Your task to perform on an android device: Go to Android settings Image 0: 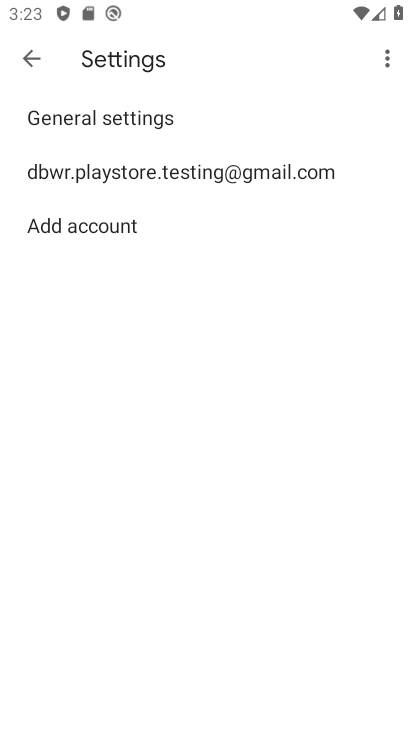
Step 0: press home button
Your task to perform on an android device: Go to Android settings Image 1: 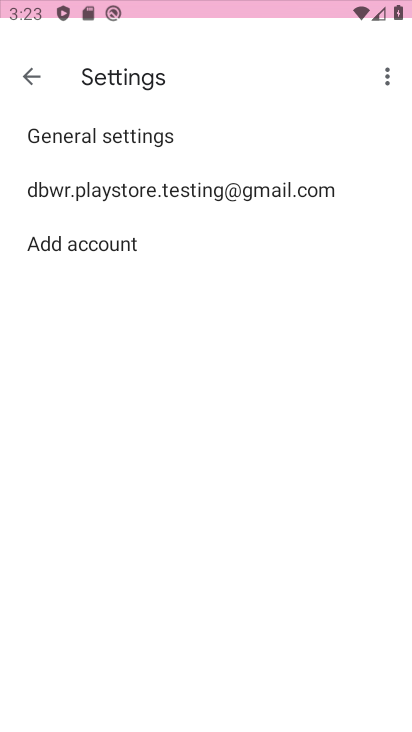
Step 1: press home button
Your task to perform on an android device: Go to Android settings Image 2: 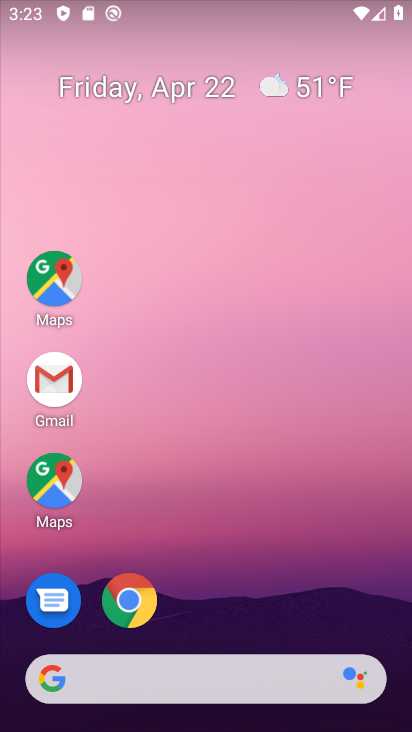
Step 2: drag from (266, 614) to (141, 212)
Your task to perform on an android device: Go to Android settings Image 3: 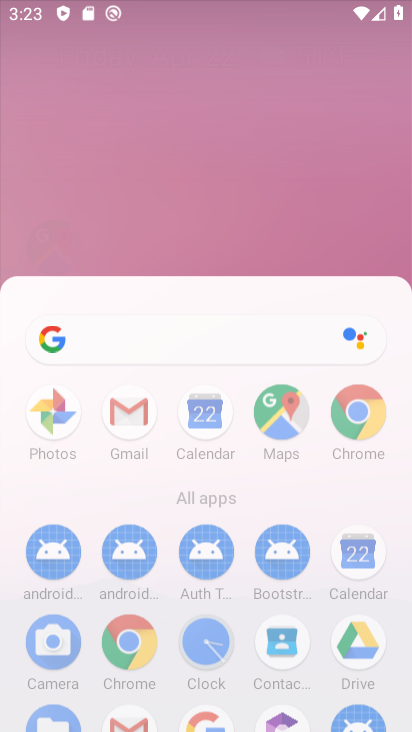
Step 3: drag from (301, 628) to (157, 130)
Your task to perform on an android device: Go to Android settings Image 4: 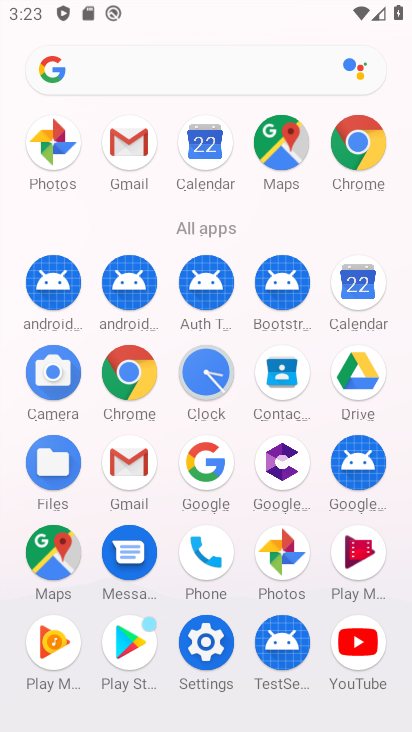
Step 4: click (205, 639)
Your task to perform on an android device: Go to Android settings Image 5: 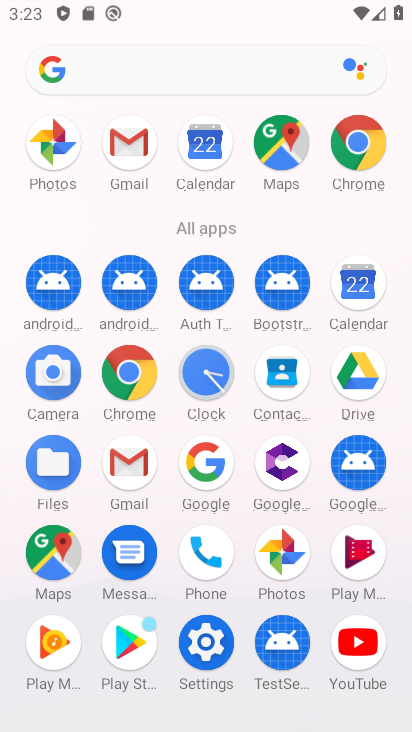
Step 5: click (215, 640)
Your task to perform on an android device: Go to Android settings Image 6: 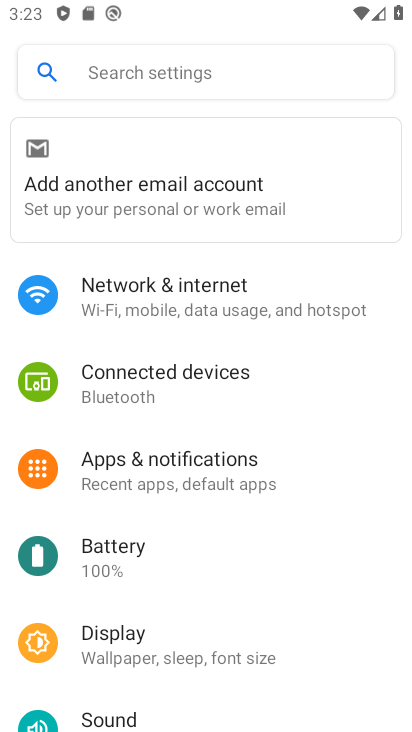
Step 6: drag from (194, 574) to (158, 100)
Your task to perform on an android device: Go to Android settings Image 7: 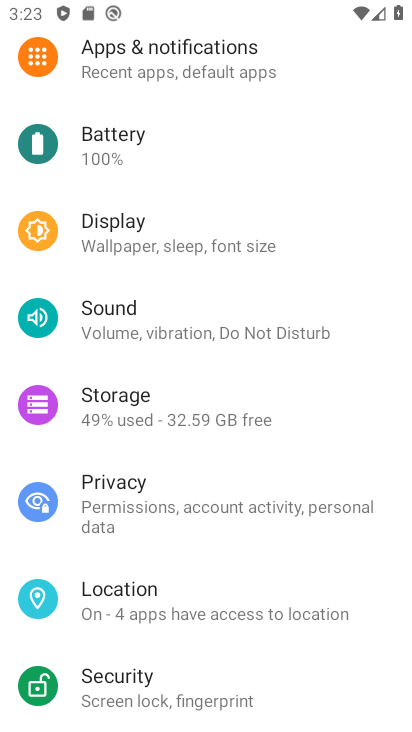
Step 7: drag from (148, 227) to (168, 160)
Your task to perform on an android device: Go to Android settings Image 8: 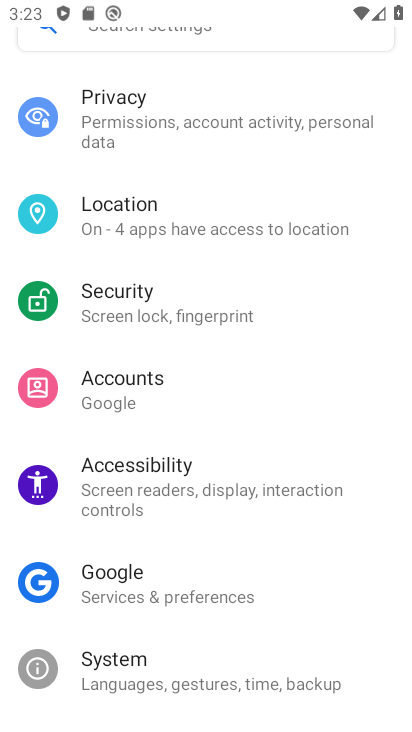
Step 8: drag from (180, 483) to (199, 162)
Your task to perform on an android device: Go to Android settings Image 9: 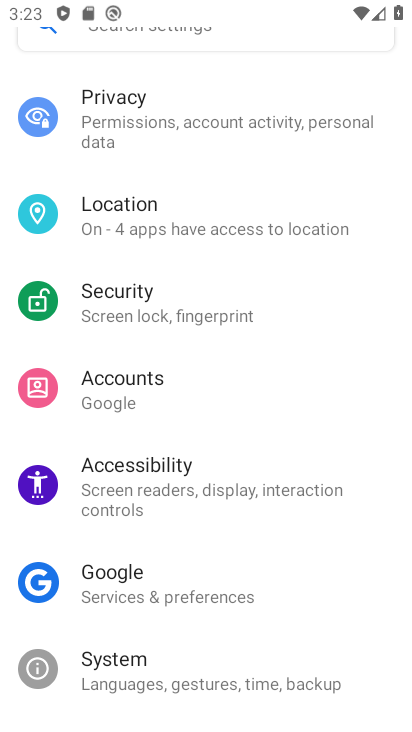
Step 9: drag from (207, 570) to (187, 240)
Your task to perform on an android device: Go to Android settings Image 10: 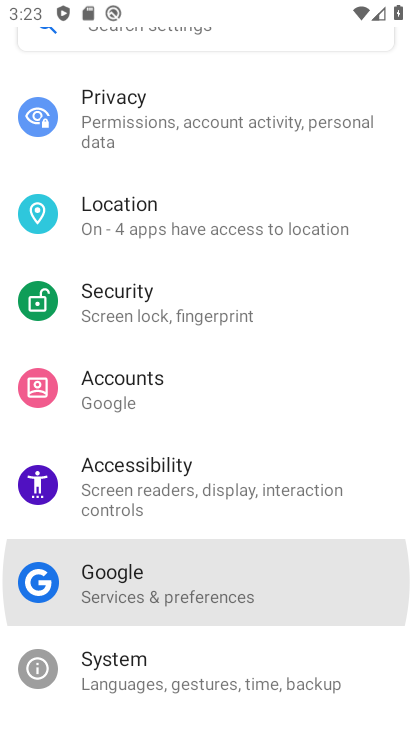
Step 10: drag from (240, 587) to (185, 243)
Your task to perform on an android device: Go to Android settings Image 11: 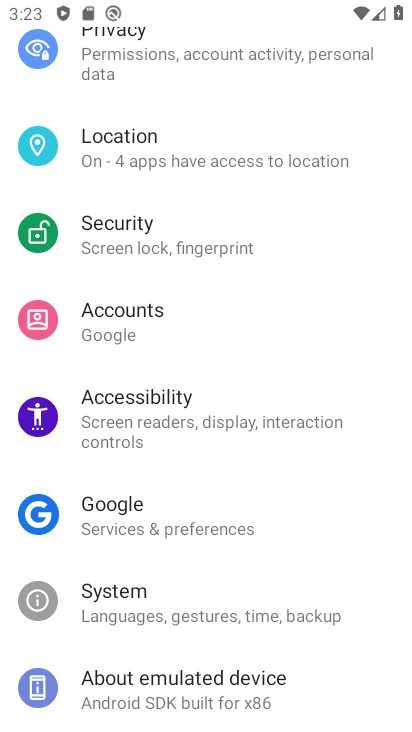
Step 11: click (166, 687)
Your task to perform on an android device: Go to Android settings Image 12: 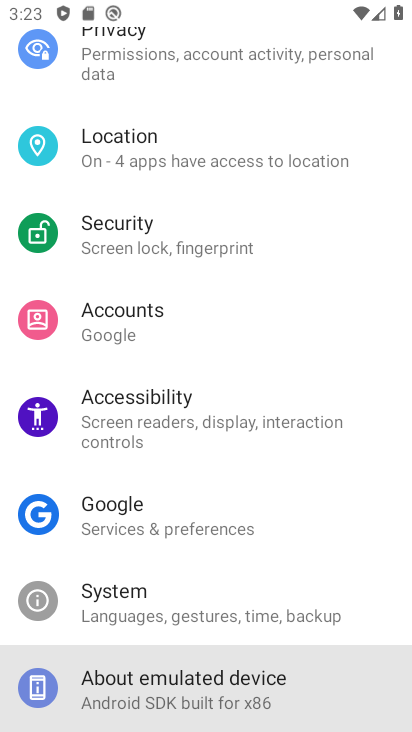
Step 12: click (166, 687)
Your task to perform on an android device: Go to Android settings Image 13: 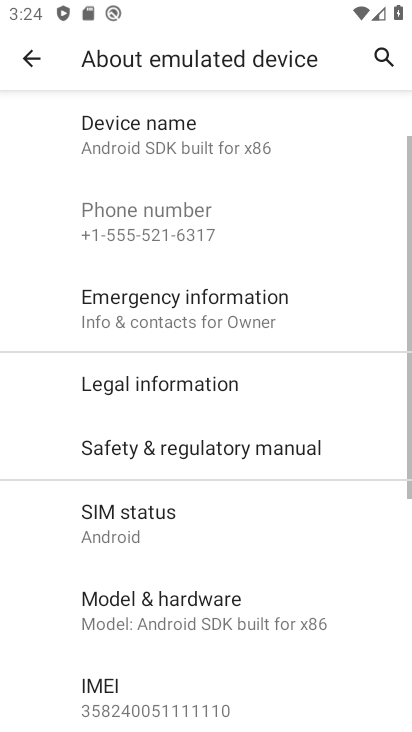
Step 13: task complete